Your task to perform on an android device: stop showing notifications on the lock screen Image 0: 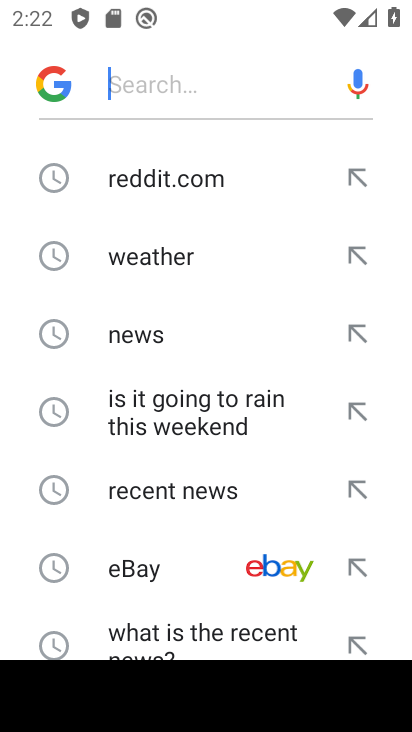
Step 0: press back button
Your task to perform on an android device: stop showing notifications on the lock screen Image 1: 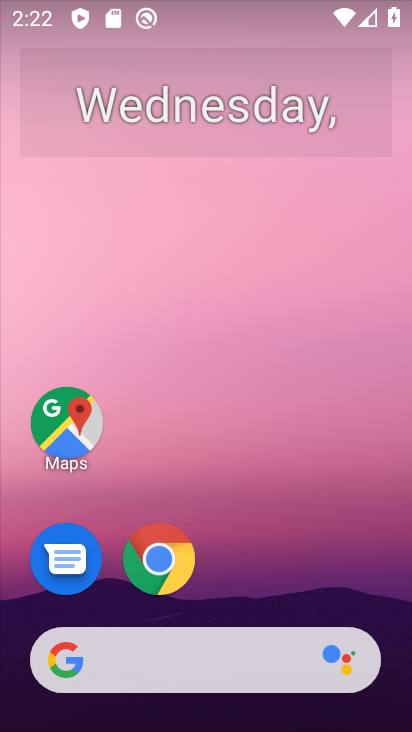
Step 1: drag from (258, 583) to (306, 29)
Your task to perform on an android device: stop showing notifications on the lock screen Image 2: 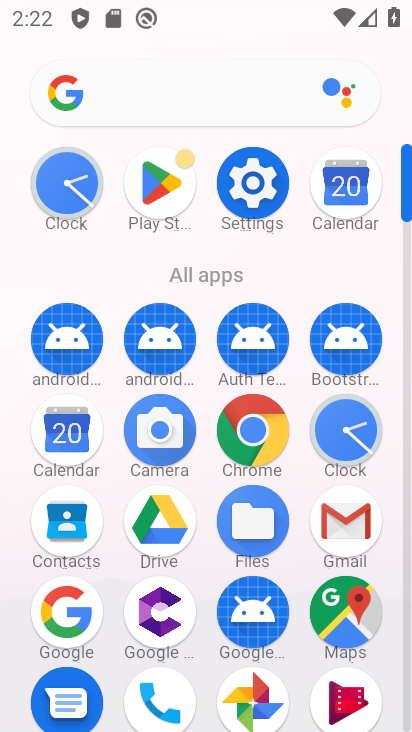
Step 2: click (255, 185)
Your task to perform on an android device: stop showing notifications on the lock screen Image 3: 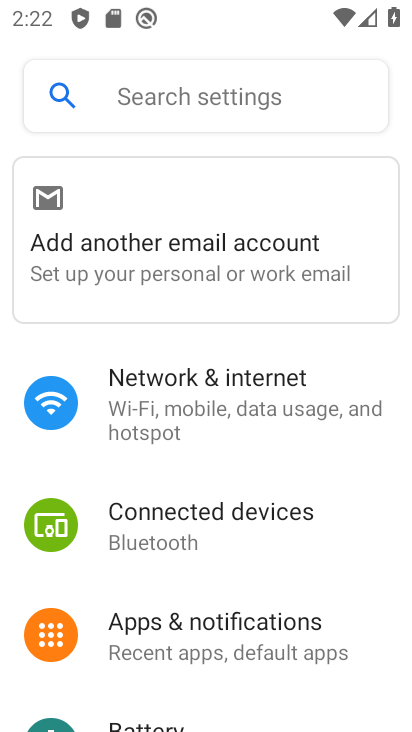
Step 3: click (253, 634)
Your task to perform on an android device: stop showing notifications on the lock screen Image 4: 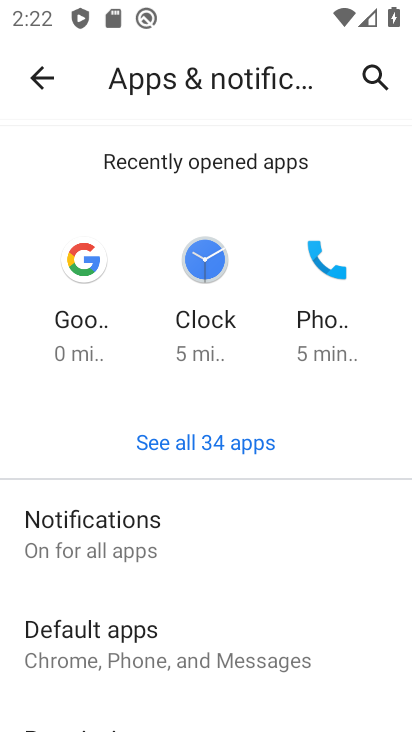
Step 4: click (163, 526)
Your task to perform on an android device: stop showing notifications on the lock screen Image 5: 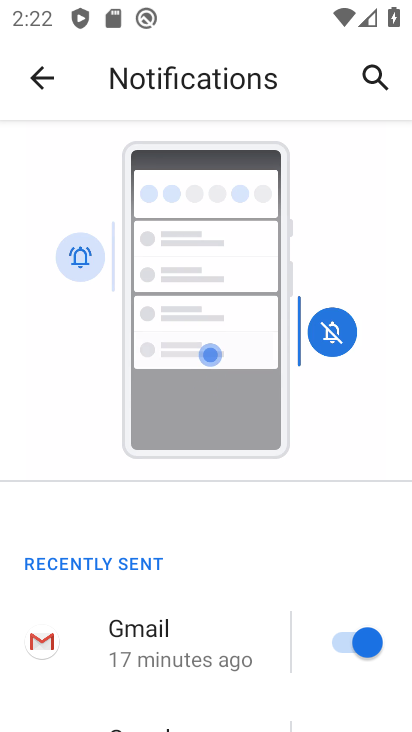
Step 5: drag from (151, 667) to (190, 88)
Your task to perform on an android device: stop showing notifications on the lock screen Image 6: 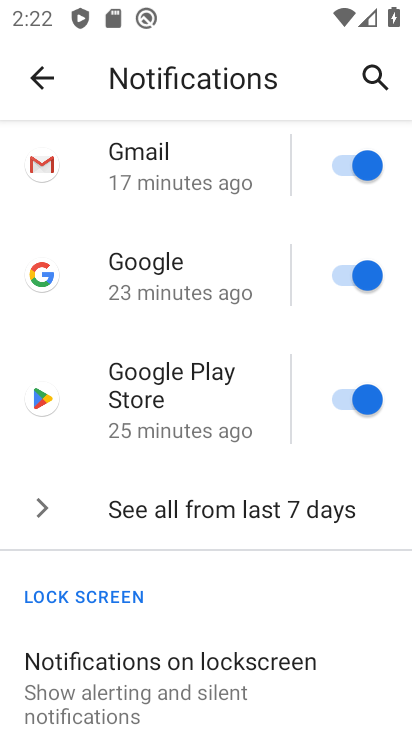
Step 6: click (132, 673)
Your task to perform on an android device: stop showing notifications on the lock screen Image 7: 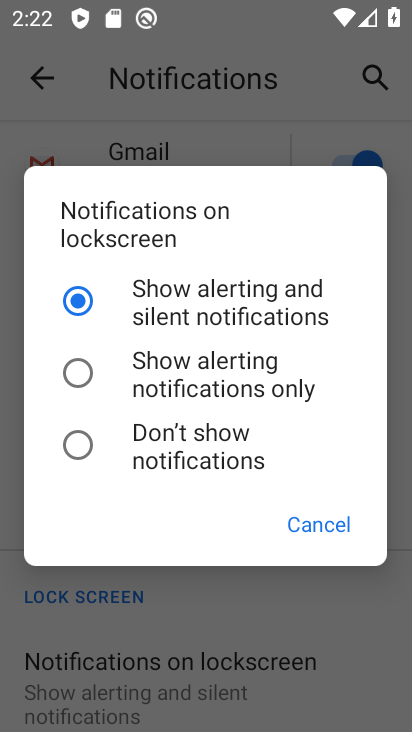
Step 7: click (140, 440)
Your task to perform on an android device: stop showing notifications on the lock screen Image 8: 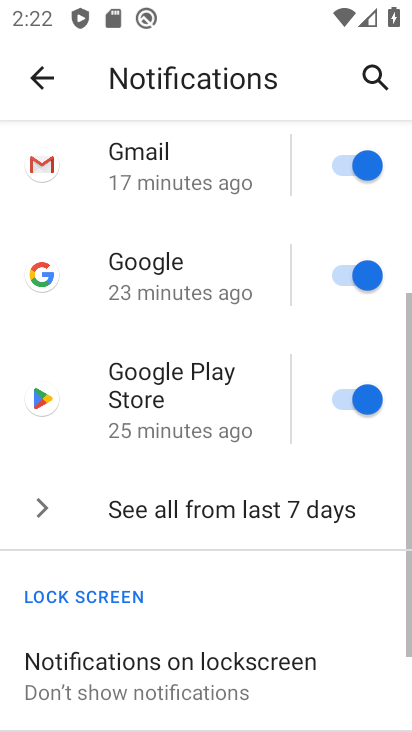
Step 8: task complete